Your task to perform on an android device: uninstall "Move to iOS" Image 0: 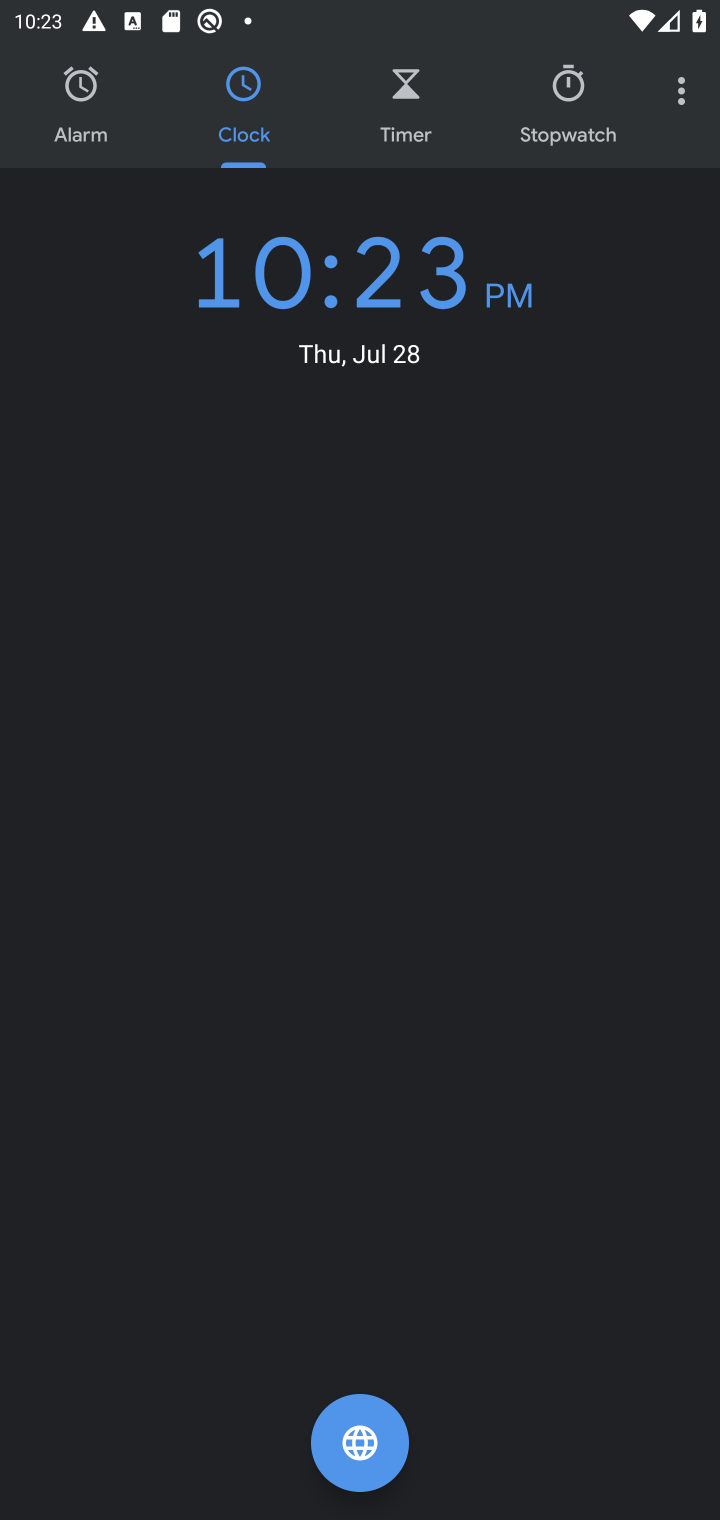
Step 0: press home button
Your task to perform on an android device: uninstall "Move to iOS" Image 1: 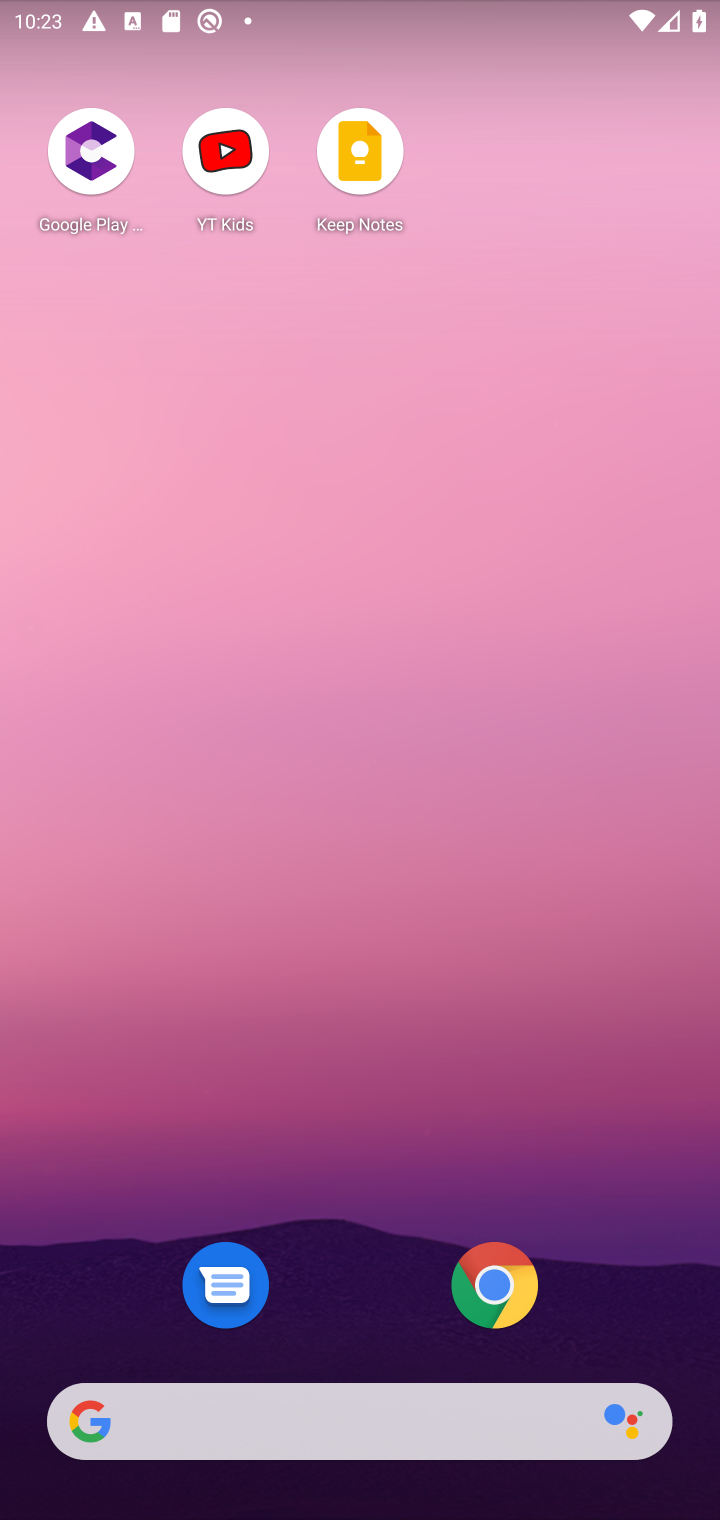
Step 1: drag from (291, 1395) to (403, 176)
Your task to perform on an android device: uninstall "Move to iOS" Image 2: 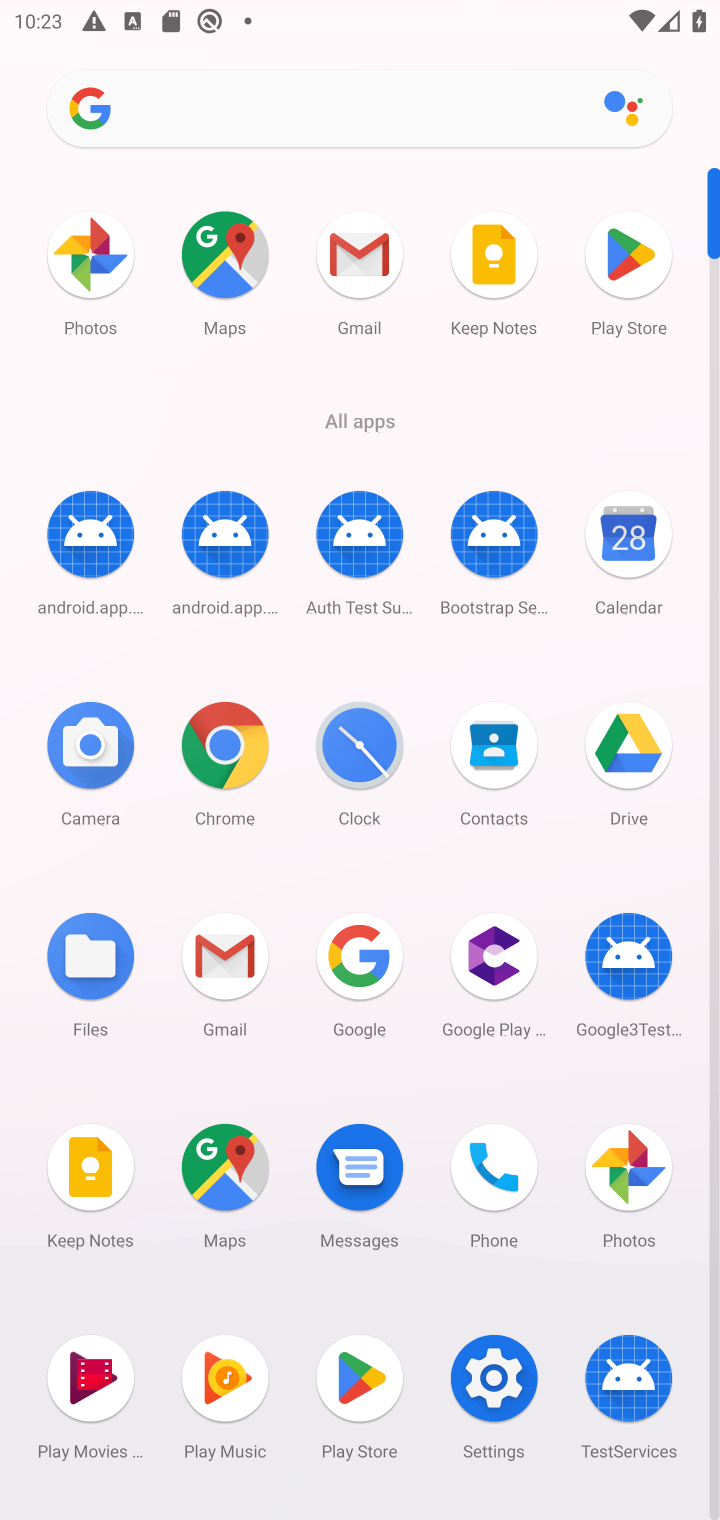
Step 2: click (629, 266)
Your task to perform on an android device: uninstall "Move to iOS" Image 3: 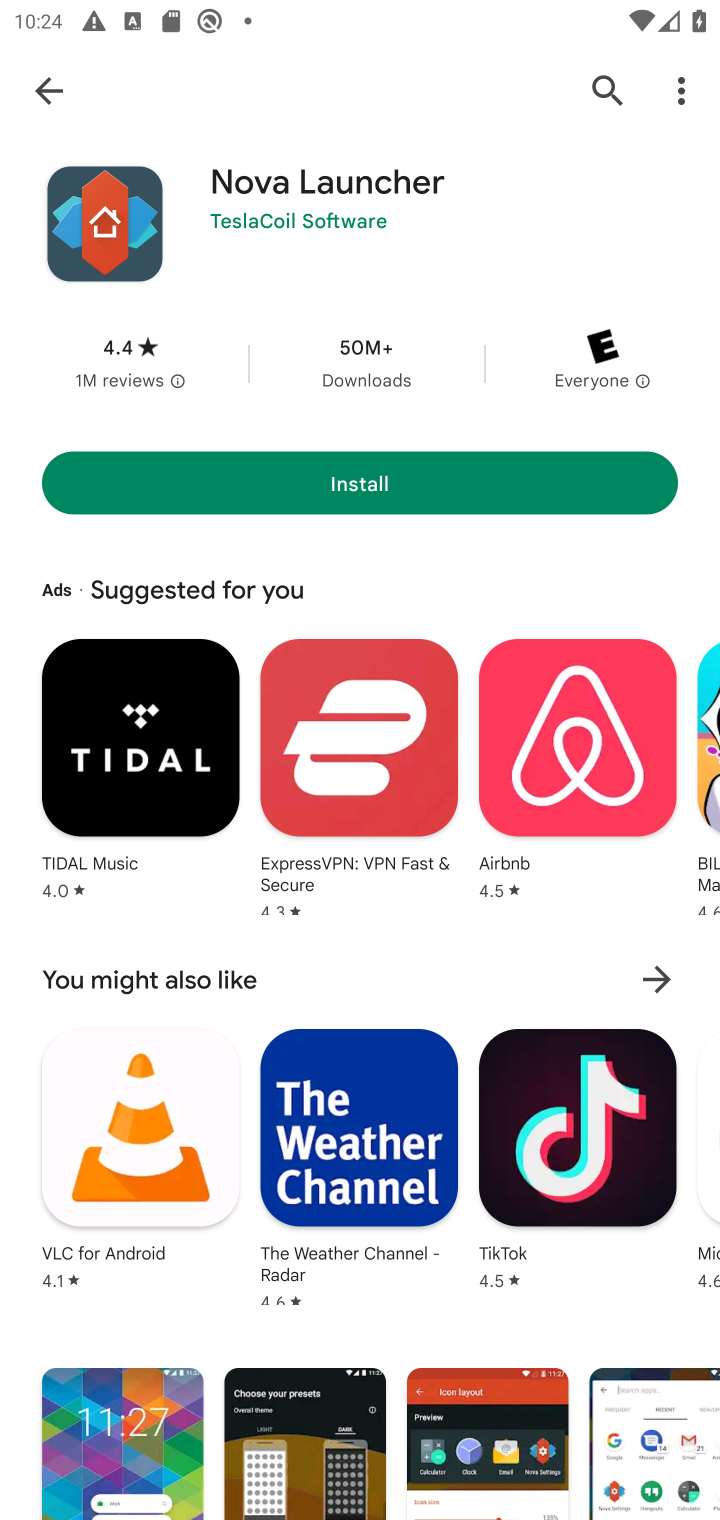
Step 3: click (605, 94)
Your task to perform on an android device: uninstall "Move to iOS" Image 4: 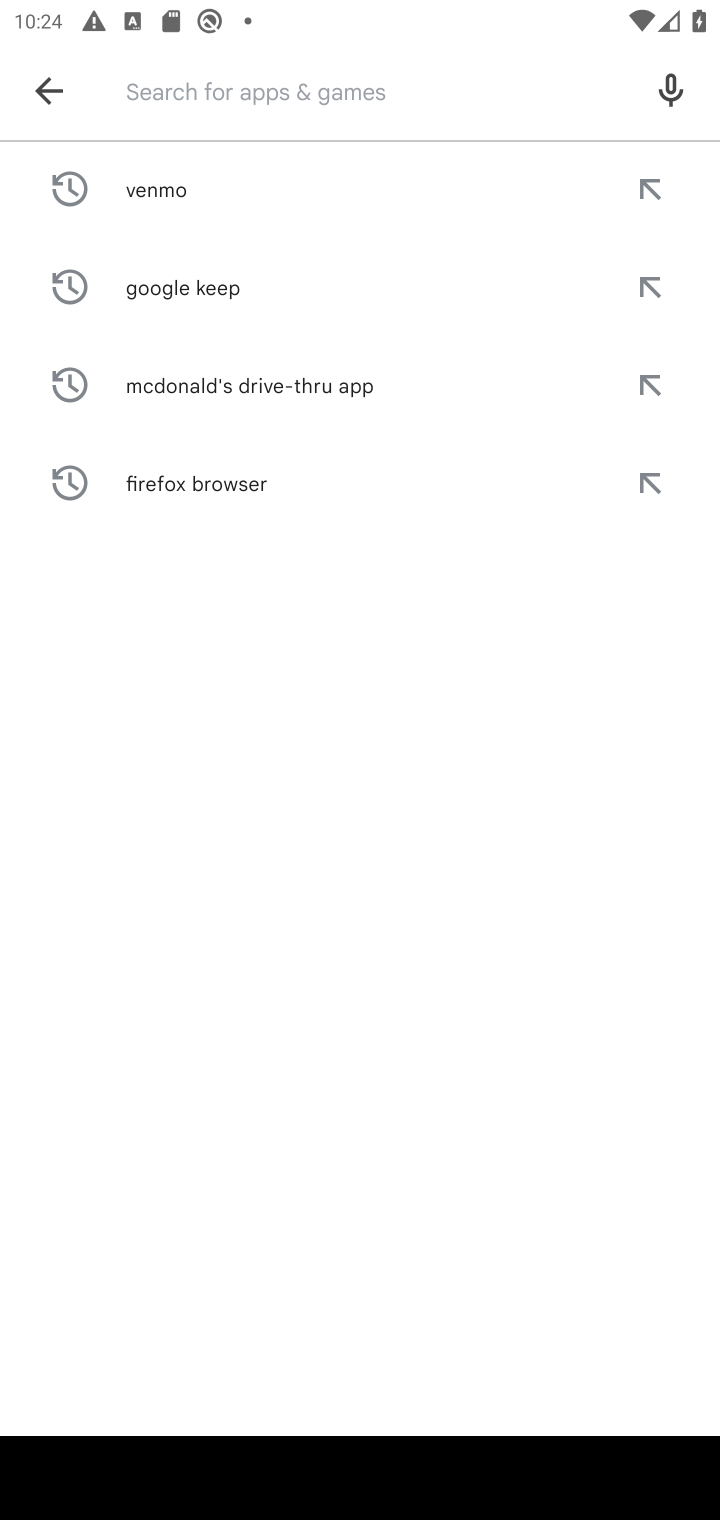
Step 4: type "Move to iOS"
Your task to perform on an android device: uninstall "Move to iOS" Image 5: 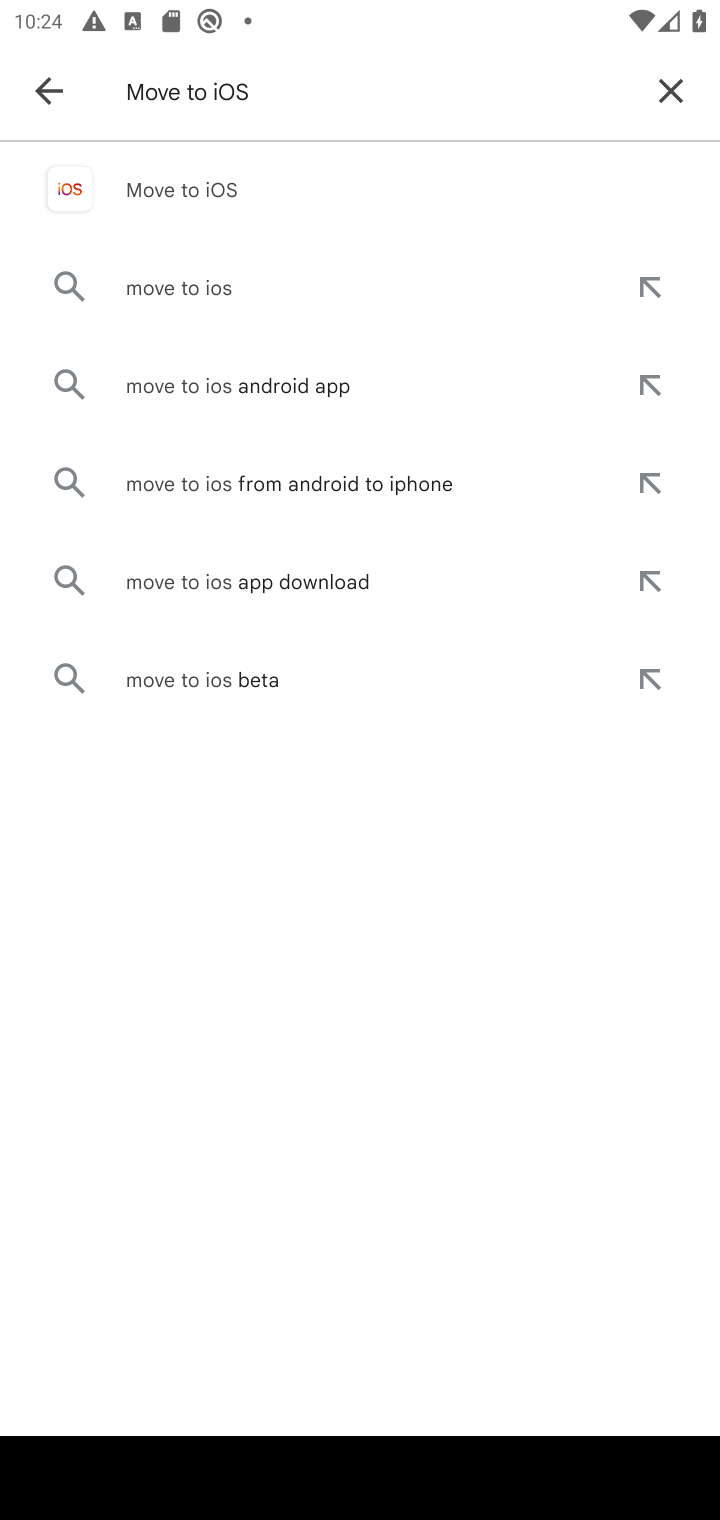
Step 5: click (216, 205)
Your task to perform on an android device: uninstall "Move to iOS" Image 6: 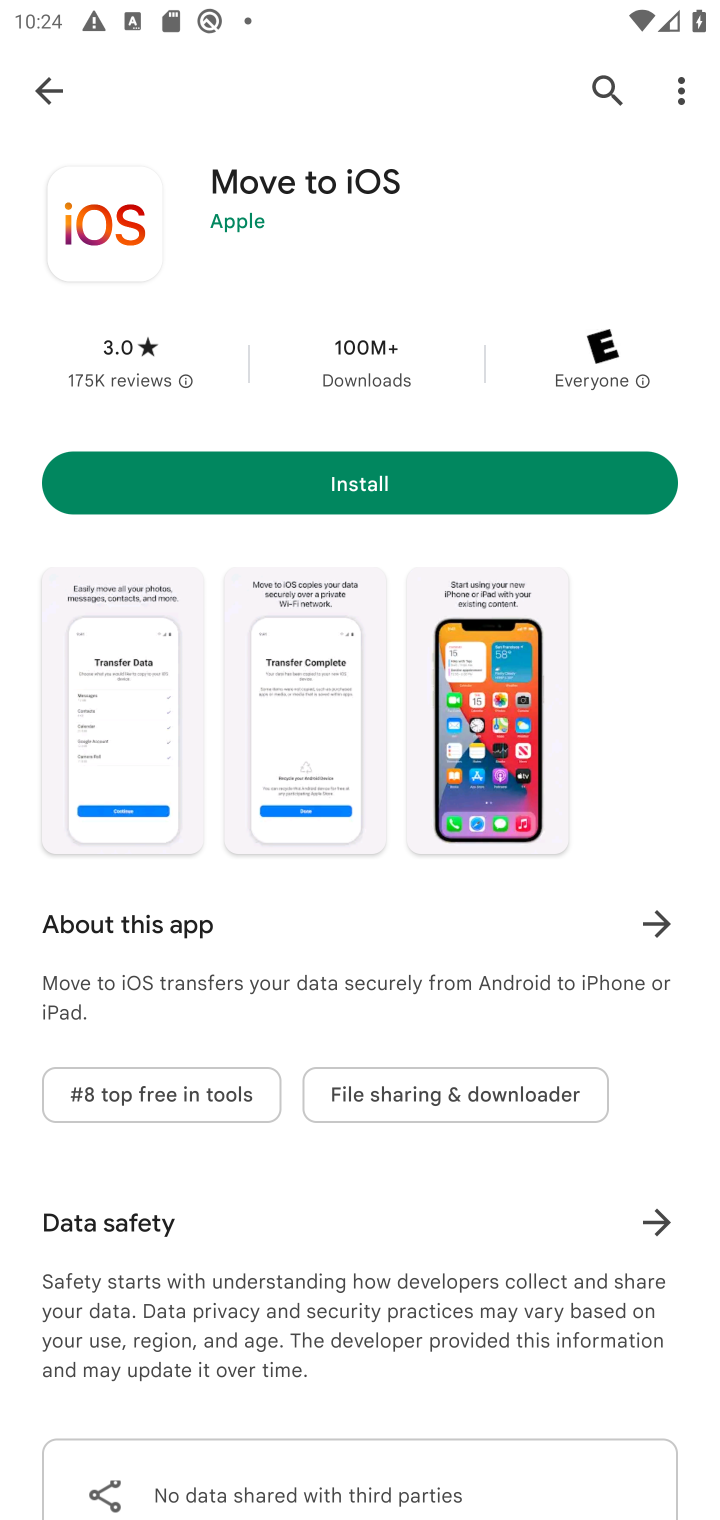
Step 6: task complete